Your task to perform on an android device: Search for "beats solo 3" on target, select the first entry, and add it to the cart. Image 0: 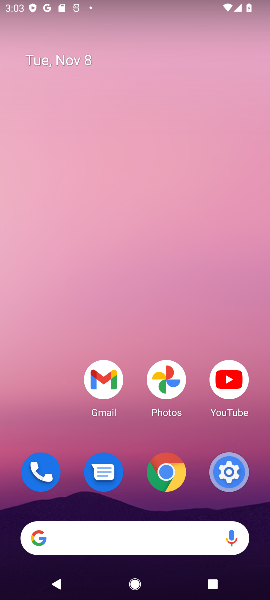
Step 0: click (127, 546)
Your task to perform on an android device: Search for "beats solo 3" on target, select the first entry, and add it to the cart. Image 1: 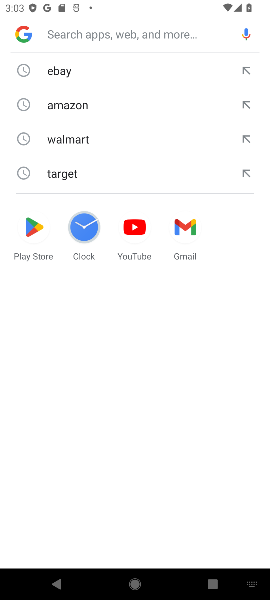
Step 1: click (141, 186)
Your task to perform on an android device: Search for "beats solo 3" on target, select the first entry, and add it to the cart. Image 2: 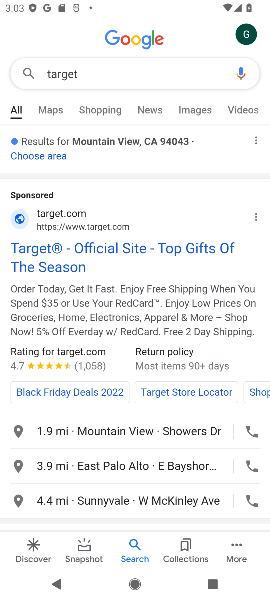
Step 2: click (85, 263)
Your task to perform on an android device: Search for "beats solo 3" on target, select the first entry, and add it to the cart. Image 3: 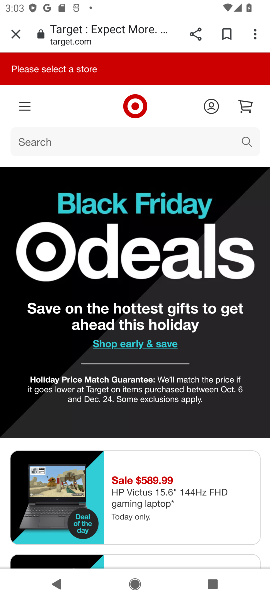
Step 3: click (149, 140)
Your task to perform on an android device: Search for "beats solo 3" on target, select the first entry, and add it to the cart. Image 4: 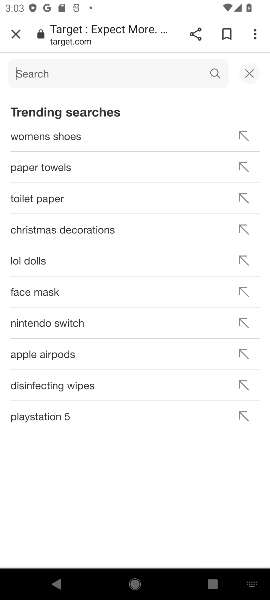
Step 4: type "beats solo 3"
Your task to perform on an android device: Search for "beats solo 3" on target, select the first entry, and add it to the cart. Image 5: 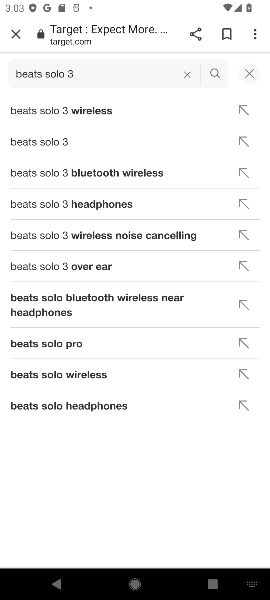
Step 5: click (88, 83)
Your task to perform on an android device: Search for "beats solo 3" on target, select the first entry, and add it to the cart. Image 6: 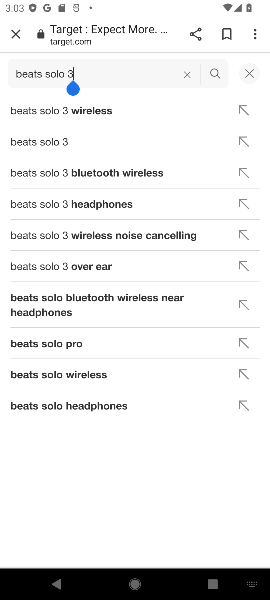
Step 6: click (212, 74)
Your task to perform on an android device: Search for "beats solo 3" on target, select the first entry, and add it to the cart. Image 7: 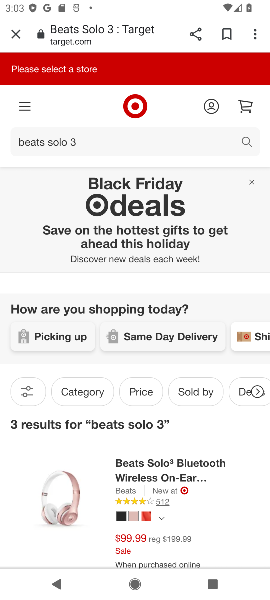
Step 7: click (146, 486)
Your task to perform on an android device: Search for "beats solo 3" on target, select the first entry, and add it to the cart. Image 8: 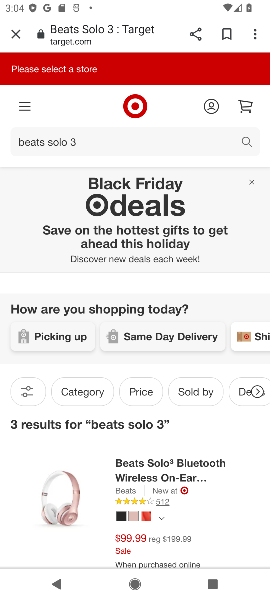
Step 8: task complete